Your task to perform on an android device: Go to calendar. Show me events next week Image 0: 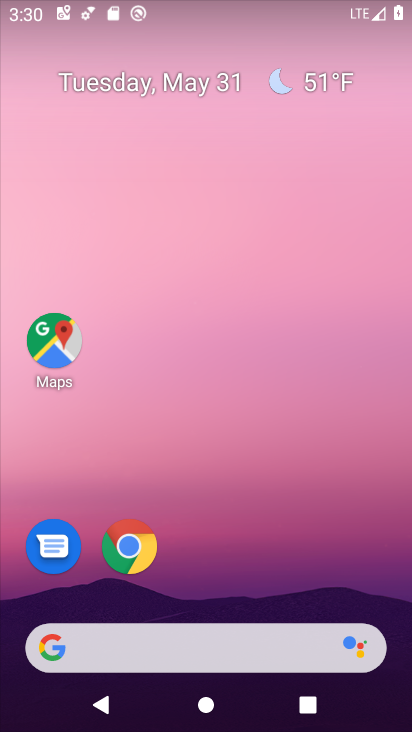
Step 0: click (202, 78)
Your task to perform on an android device: Go to calendar. Show me events next week Image 1: 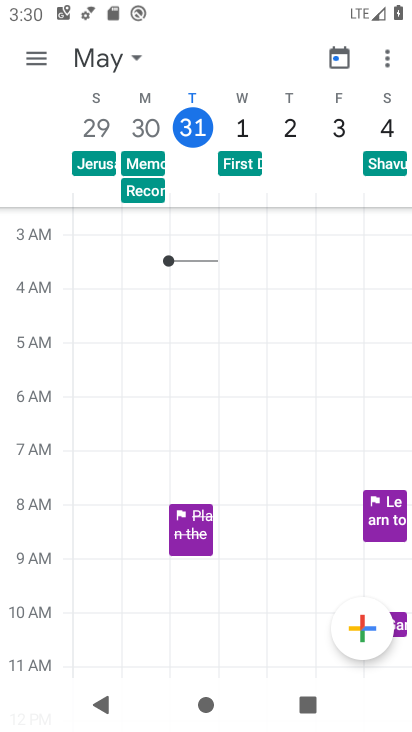
Step 1: click (145, 55)
Your task to perform on an android device: Go to calendar. Show me events next week Image 2: 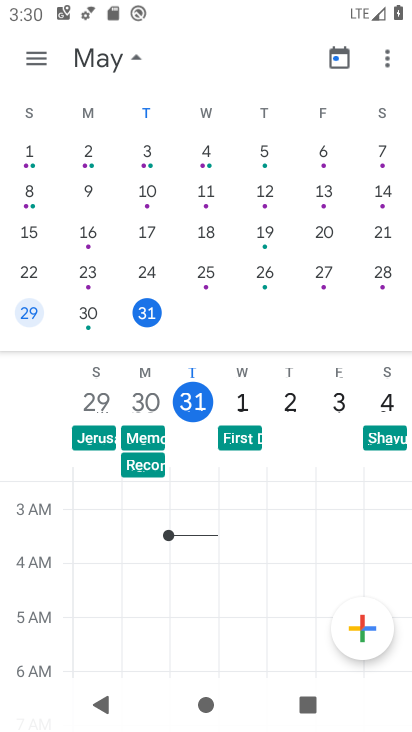
Step 2: drag from (320, 229) to (52, 226)
Your task to perform on an android device: Go to calendar. Show me events next week Image 3: 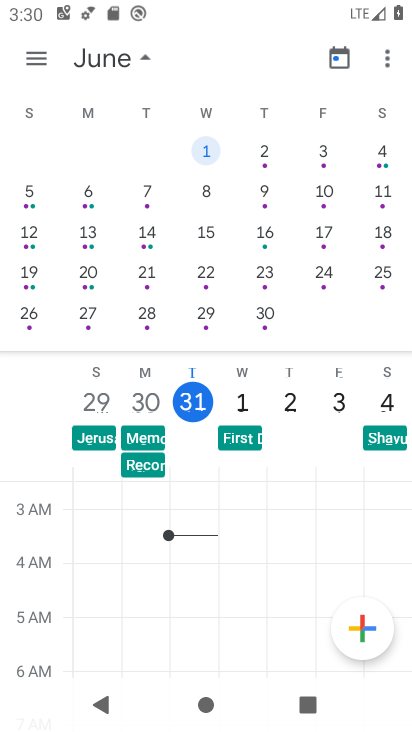
Step 3: click (26, 186)
Your task to perform on an android device: Go to calendar. Show me events next week Image 4: 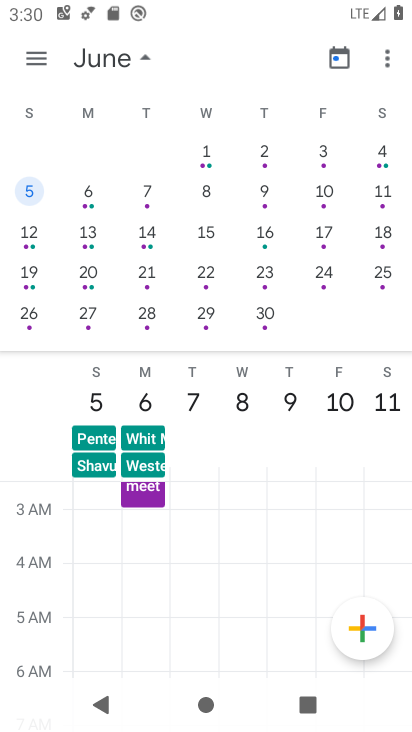
Step 4: task complete